Your task to perform on an android device: visit the assistant section in the google photos Image 0: 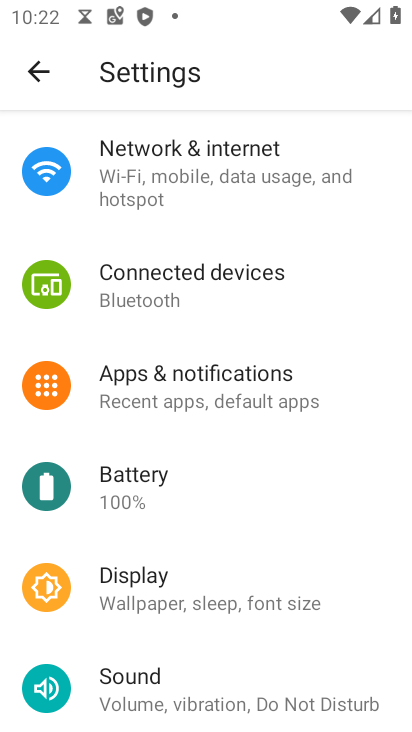
Step 0: press home button
Your task to perform on an android device: visit the assistant section in the google photos Image 1: 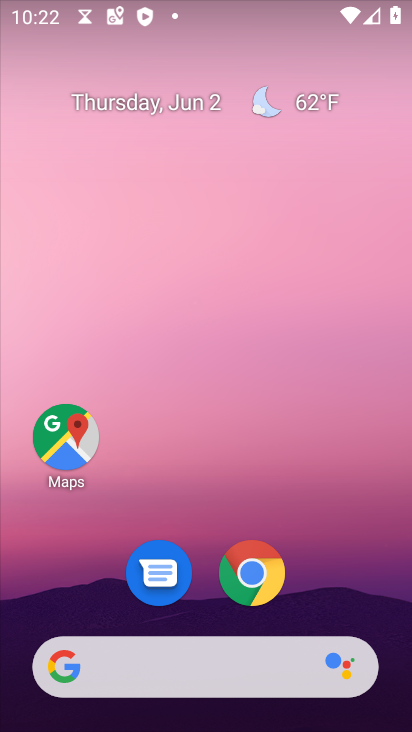
Step 1: drag from (351, 575) to (252, 48)
Your task to perform on an android device: visit the assistant section in the google photos Image 2: 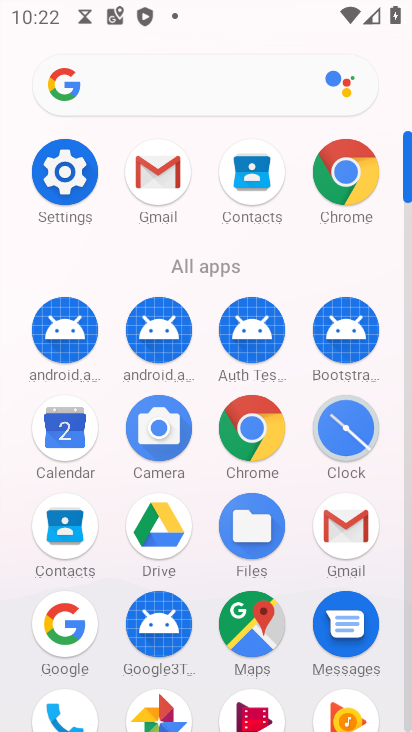
Step 2: drag from (284, 273) to (310, 54)
Your task to perform on an android device: visit the assistant section in the google photos Image 3: 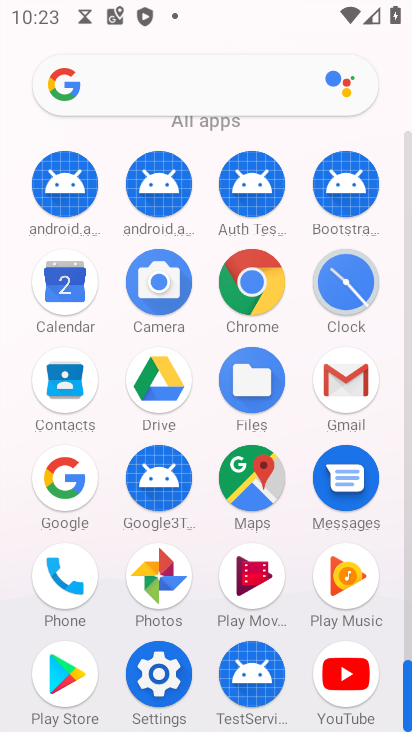
Step 3: click (159, 576)
Your task to perform on an android device: visit the assistant section in the google photos Image 4: 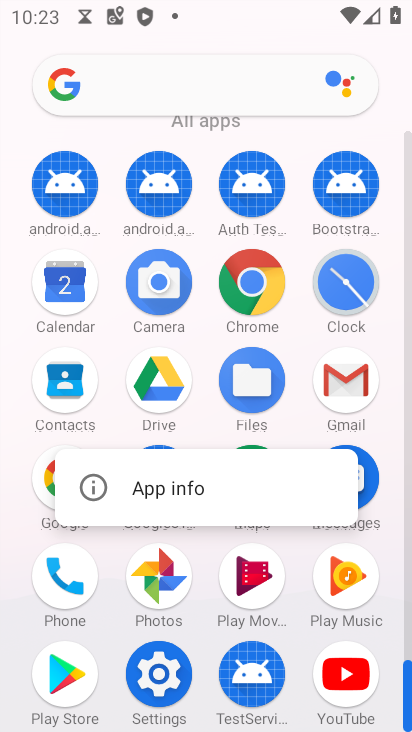
Step 4: click (159, 576)
Your task to perform on an android device: visit the assistant section in the google photos Image 5: 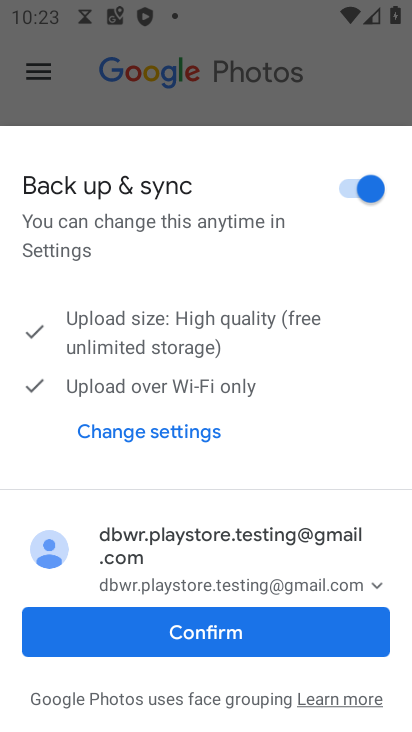
Step 5: click (203, 630)
Your task to perform on an android device: visit the assistant section in the google photos Image 6: 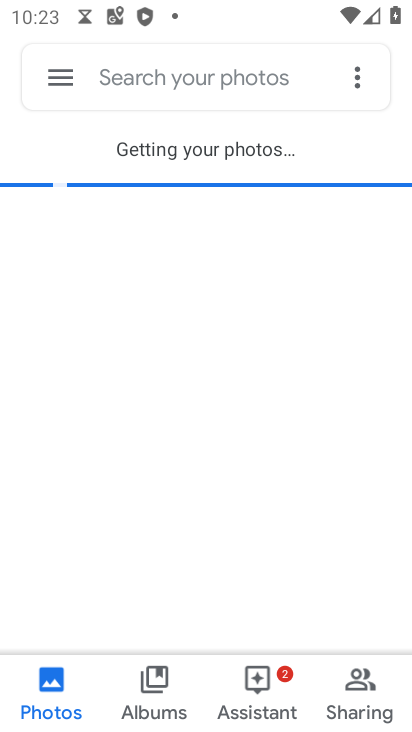
Step 6: click (259, 676)
Your task to perform on an android device: visit the assistant section in the google photos Image 7: 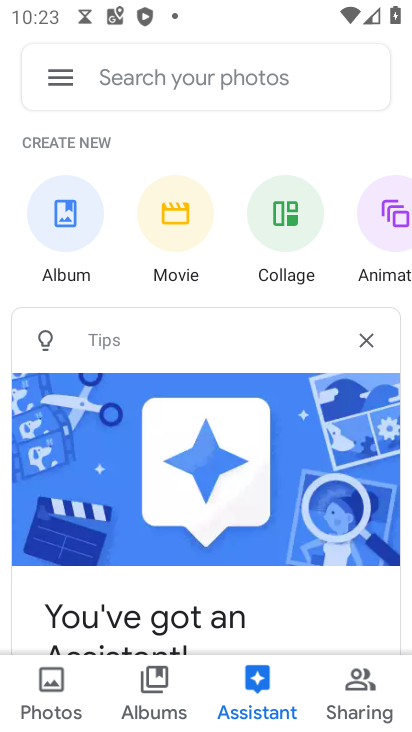
Step 7: task complete